Your task to perform on an android device: open app "Adobe Acrobat Reader: Edit PDF" (install if not already installed) Image 0: 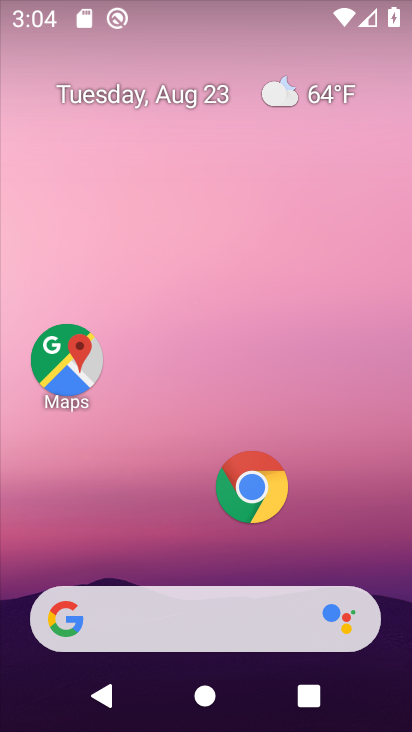
Step 0: drag from (172, 551) to (225, 230)
Your task to perform on an android device: open app "Adobe Acrobat Reader: Edit PDF" (install if not already installed) Image 1: 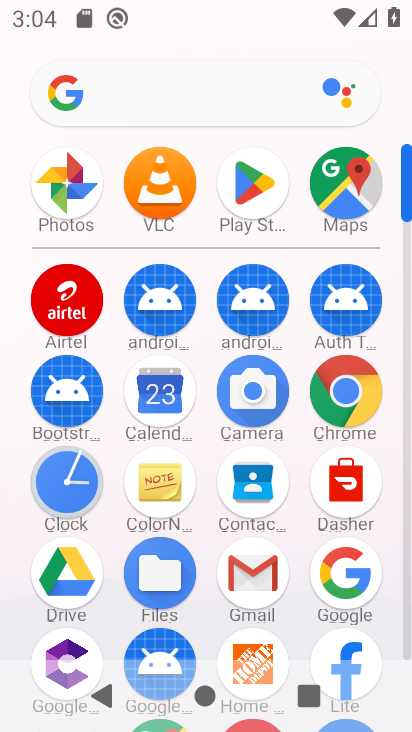
Step 1: click (249, 184)
Your task to perform on an android device: open app "Adobe Acrobat Reader: Edit PDF" (install if not already installed) Image 2: 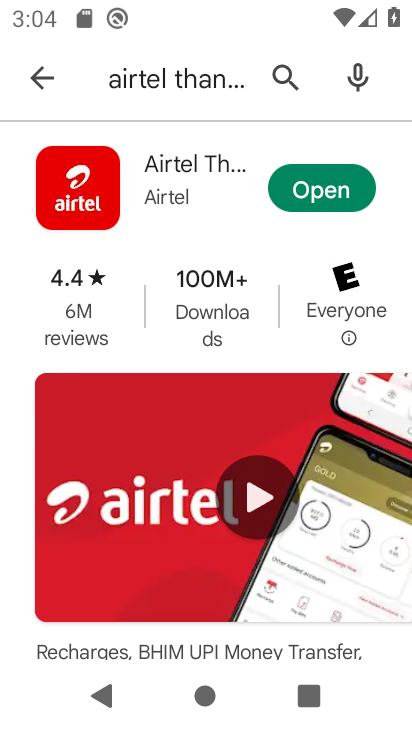
Step 2: click (34, 51)
Your task to perform on an android device: open app "Adobe Acrobat Reader: Edit PDF" (install if not already installed) Image 3: 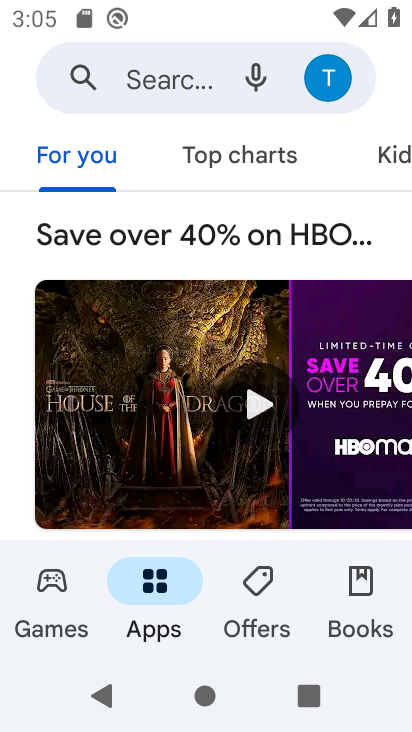
Step 3: click (166, 66)
Your task to perform on an android device: open app "Adobe Acrobat Reader: Edit PDF" (install if not already installed) Image 4: 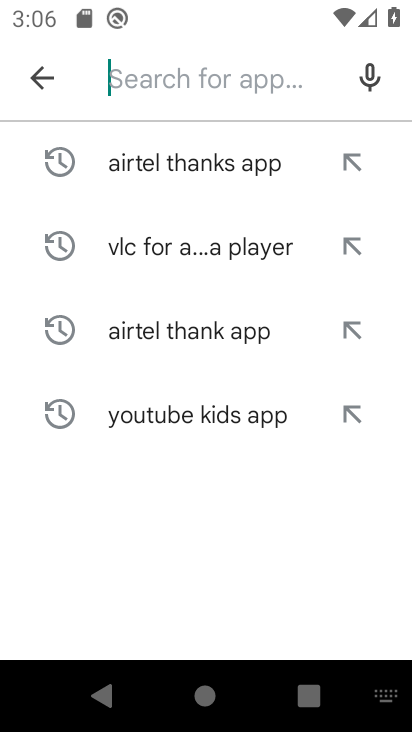
Step 4: type "Adobe Acrobat Reader: Edit PDF  "
Your task to perform on an android device: open app "Adobe Acrobat Reader: Edit PDF" (install if not already installed) Image 5: 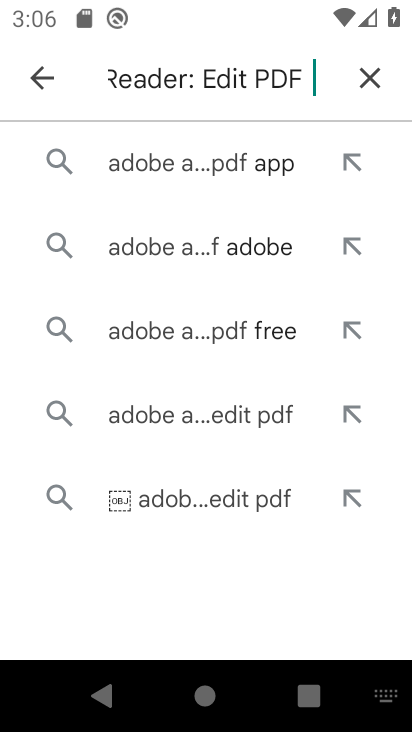
Step 5: click (193, 163)
Your task to perform on an android device: open app "Adobe Acrobat Reader: Edit PDF" (install if not already installed) Image 6: 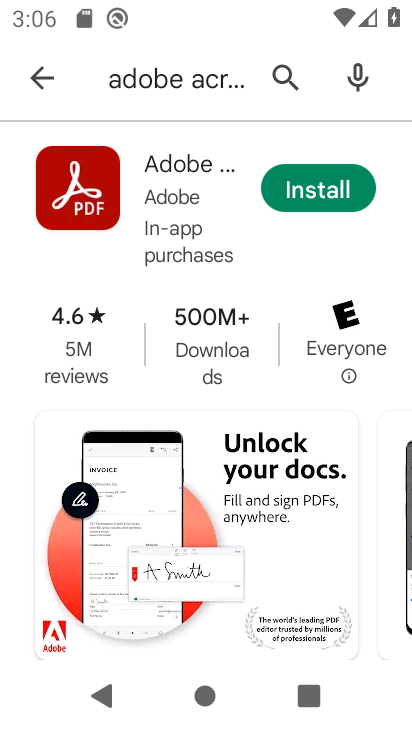
Step 6: click (337, 186)
Your task to perform on an android device: open app "Adobe Acrobat Reader: Edit PDF" (install if not already installed) Image 7: 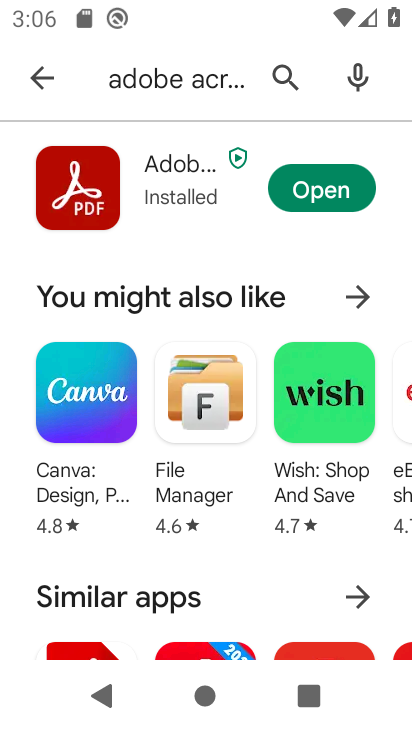
Step 7: task complete